Your task to perform on an android device: Go to Reddit.com Image 0: 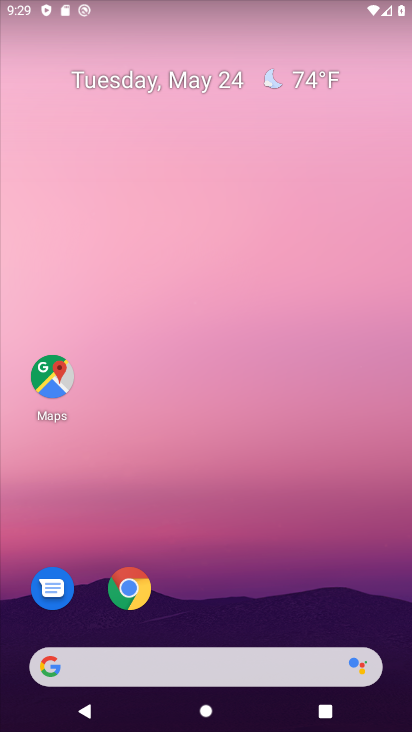
Step 0: click (151, 666)
Your task to perform on an android device: Go to Reddit.com Image 1: 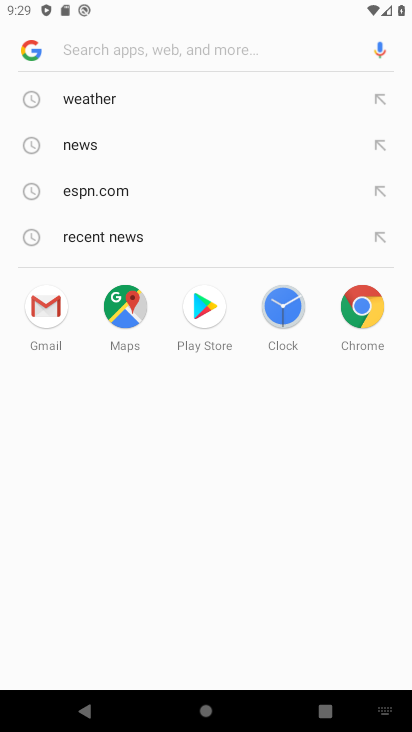
Step 1: type "reddit"
Your task to perform on an android device: Go to Reddit.com Image 2: 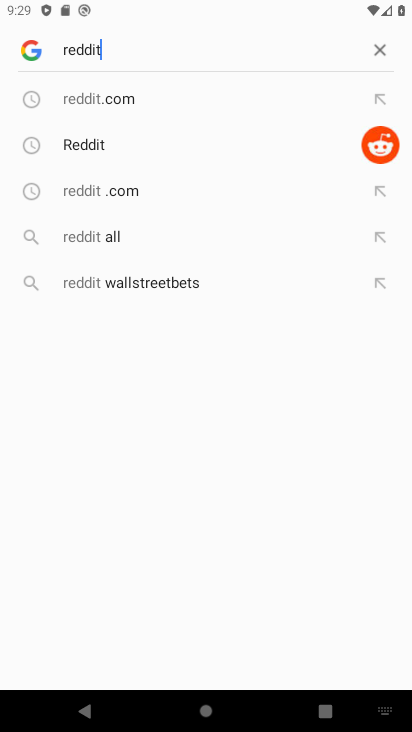
Step 2: click (378, 151)
Your task to perform on an android device: Go to Reddit.com Image 3: 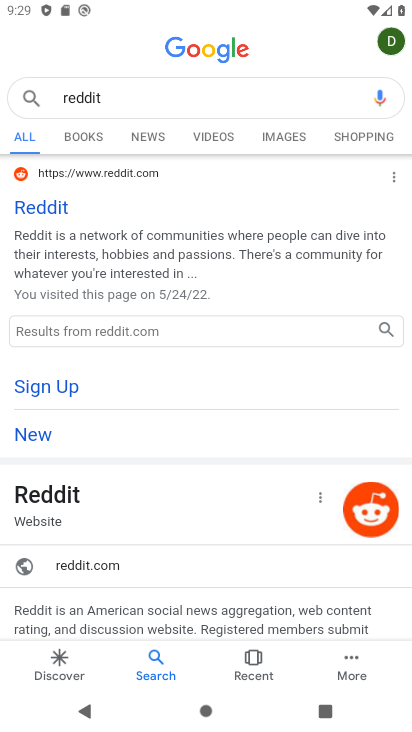
Step 3: click (26, 199)
Your task to perform on an android device: Go to Reddit.com Image 4: 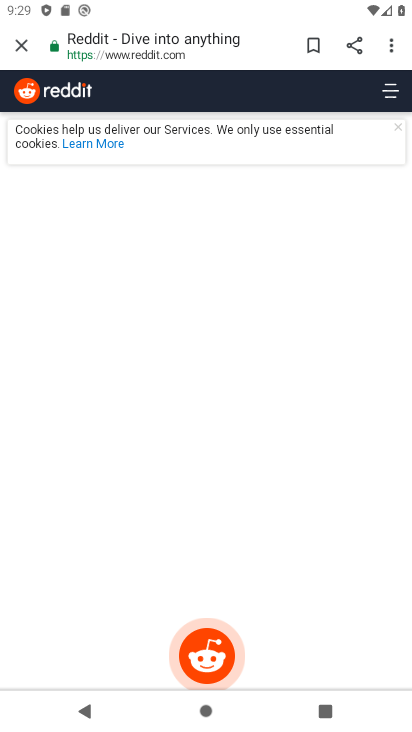
Step 4: task complete